Your task to perform on an android device: delete the emails in spam in the gmail app Image 0: 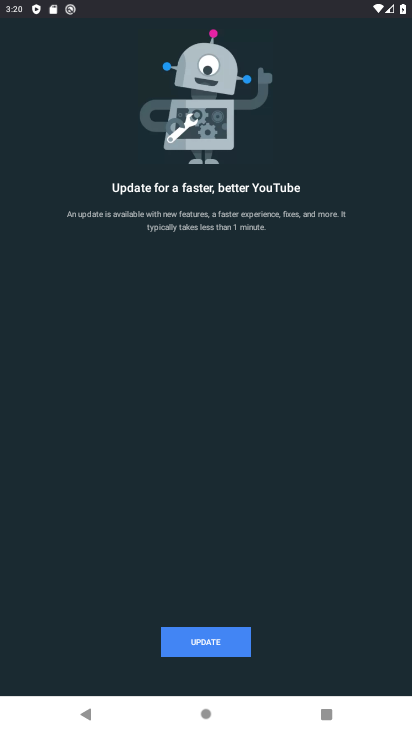
Step 0: press back button
Your task to perform on an android device: delete the emails in spam in the gmail app Image 1: 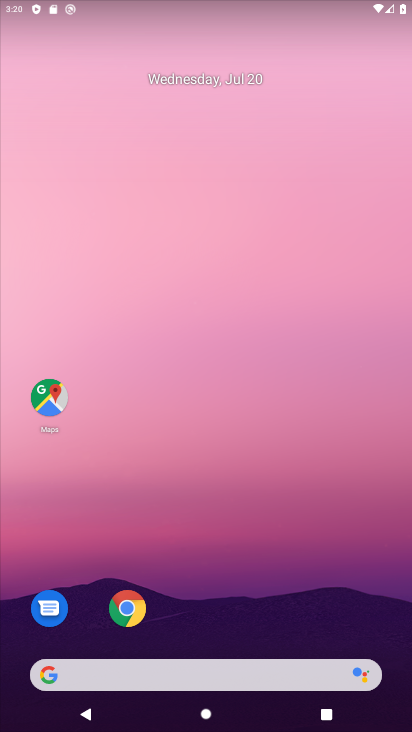
Step 1: drag from (268, 619) to (244, 184)
Your task to perform on an android device: delete the emails in spam in the gmail app Image 2: 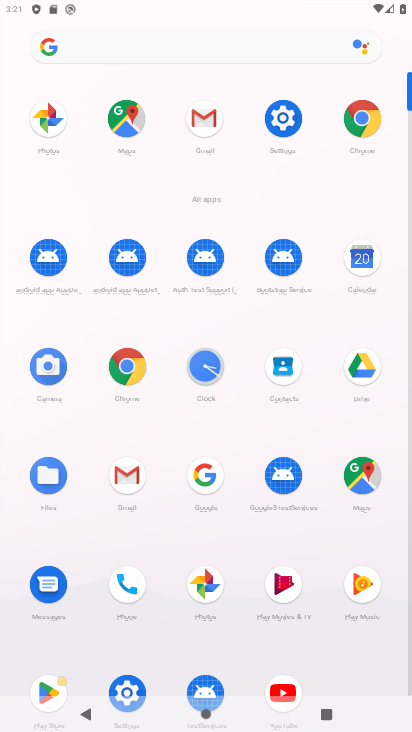
Step 2: click (208, 132)
Your task to perform on an android device: delete the emails in spam in the gmail app Image 3: 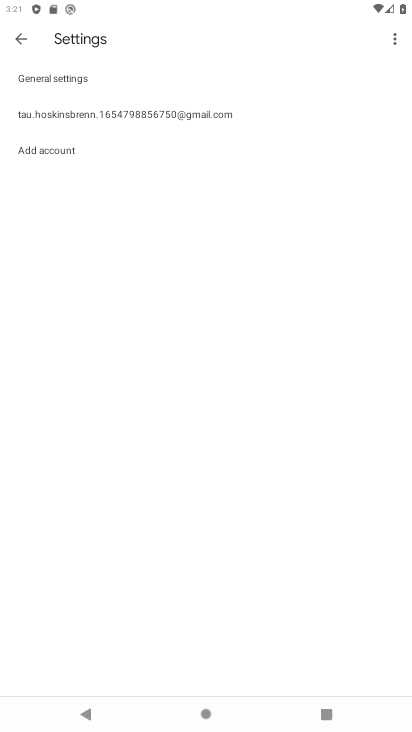
Step 3: click (182, 120)
Your task to perform on an android device: delete the emails in spam in the gmail app Image 4: 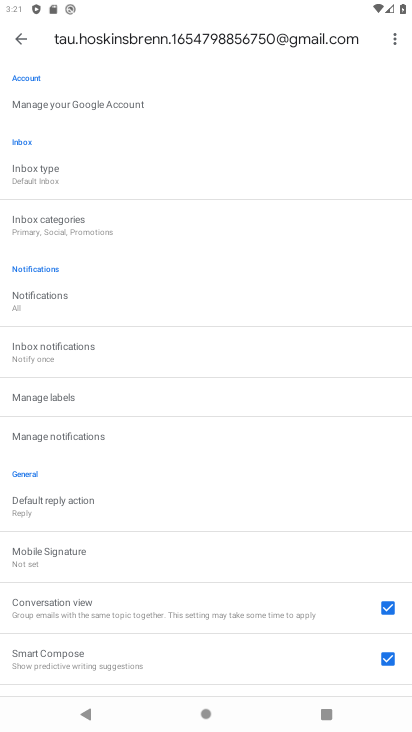
Step 4: task complete